Your task to perform on an android device: open app "Move to iOS" Image 0: 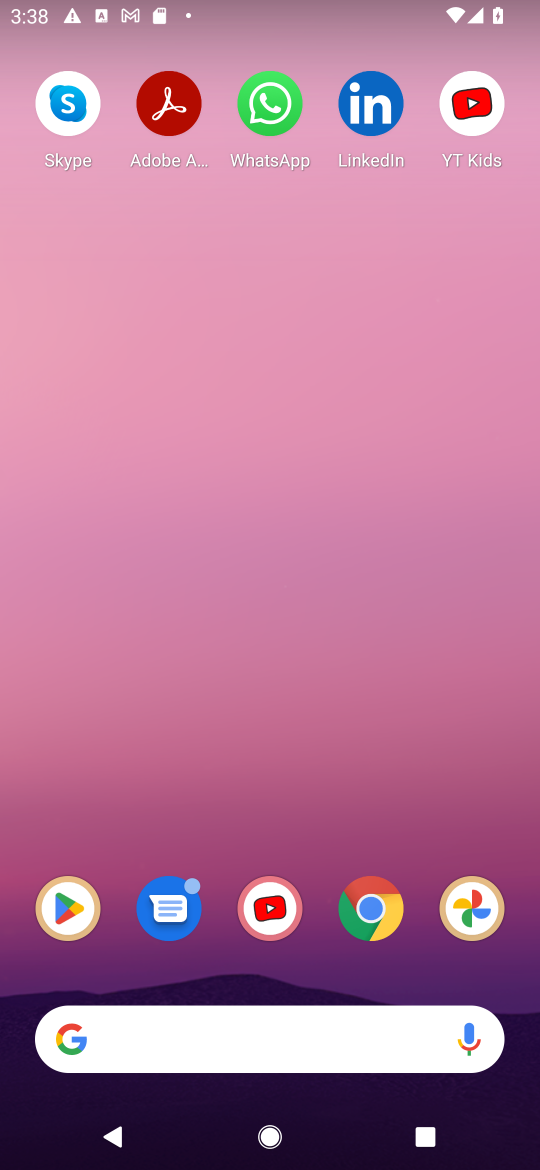
Step 0: click (78, 898)
Your task to perform on an android device: open app "Move to iOS" Image 1: 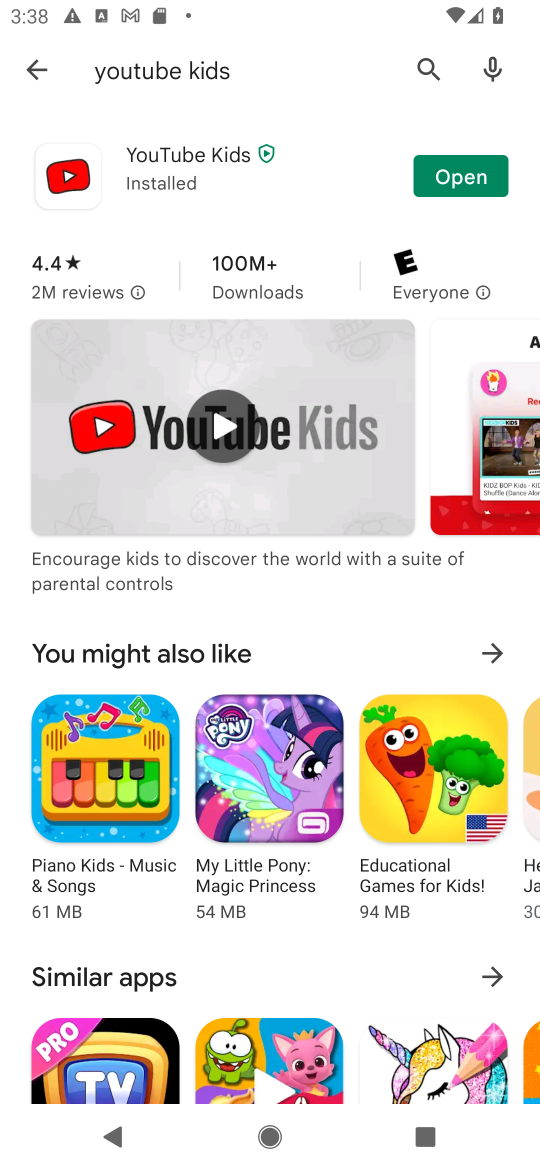
Step 1: click (417, 74)
Your task to perform on an android device: open app "Move to iOS" Image 2: 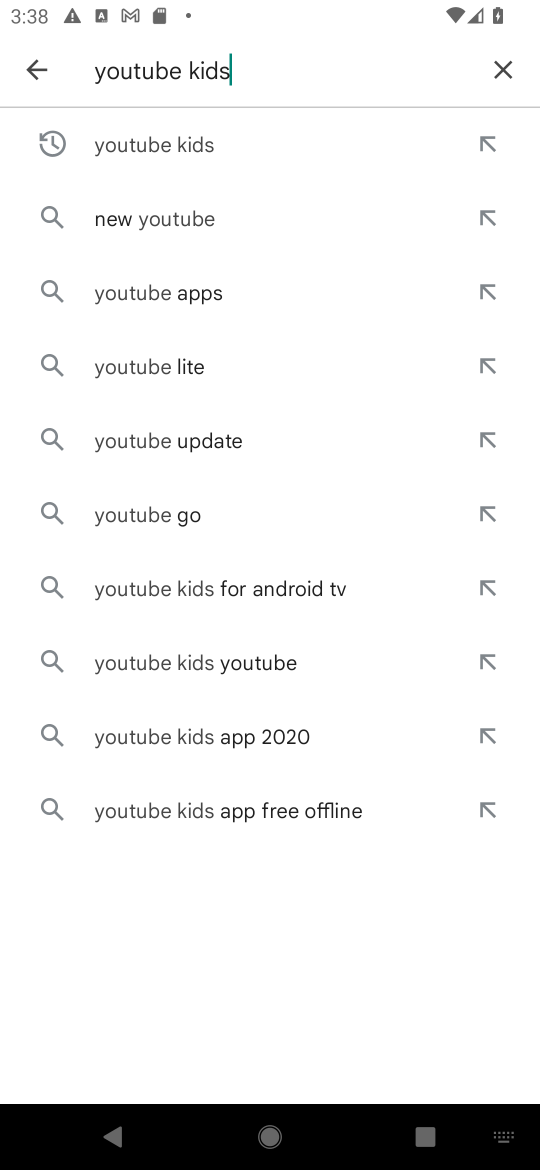
Step 2: click (512, 64)
Your task to perform on an android device: open app "Move to iOS" Image 3: 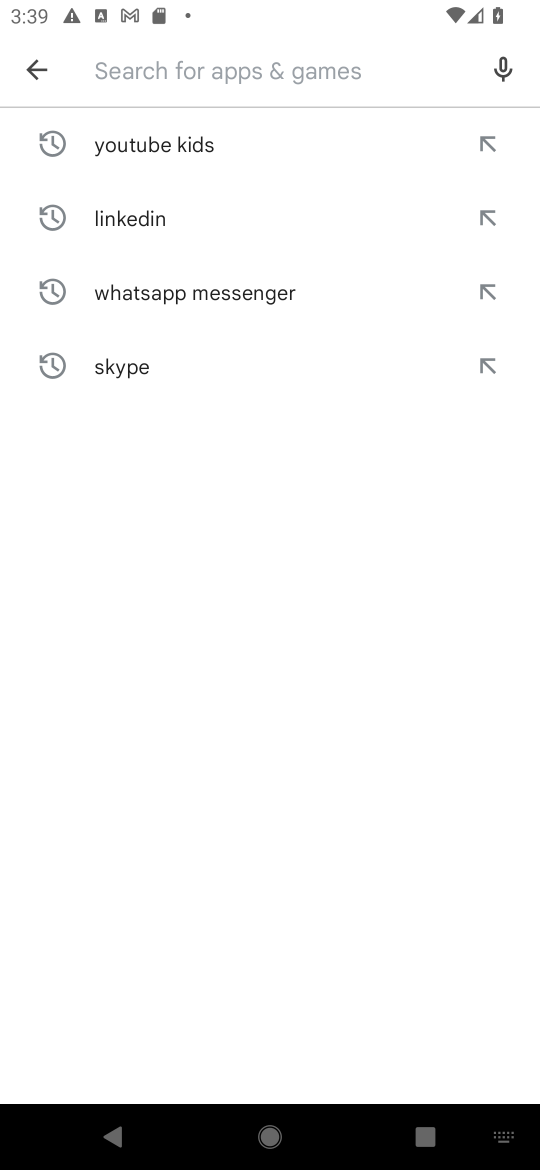
Step 3: type "move to ios"
Your task to perform on an android device: open app "Move to iOS" Image 4: 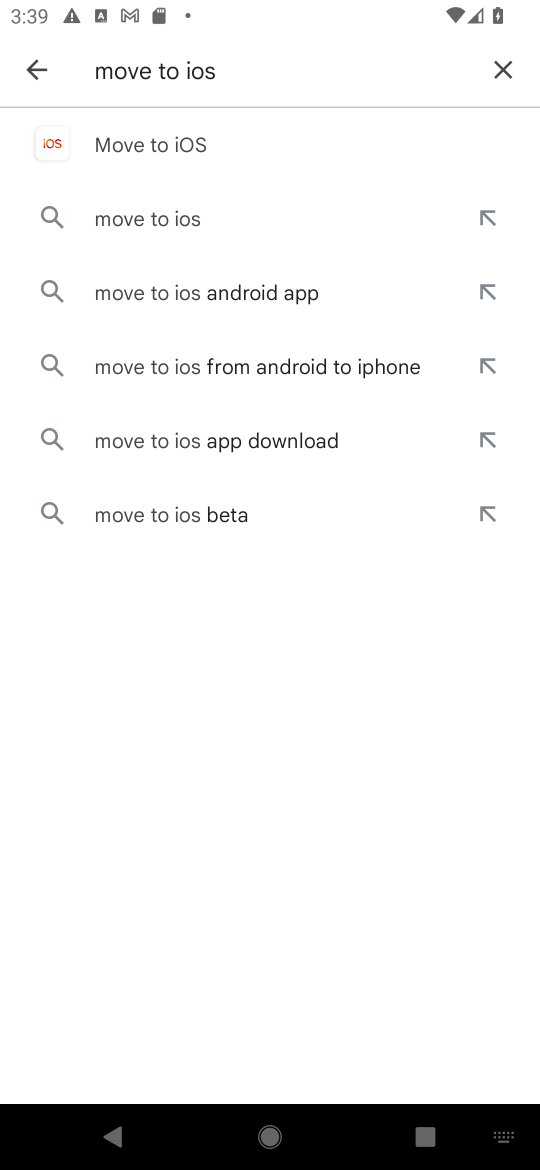
Step 4: click (145, 133)
Your task to perform on an android device: open app "Move to iOS" Image 5: 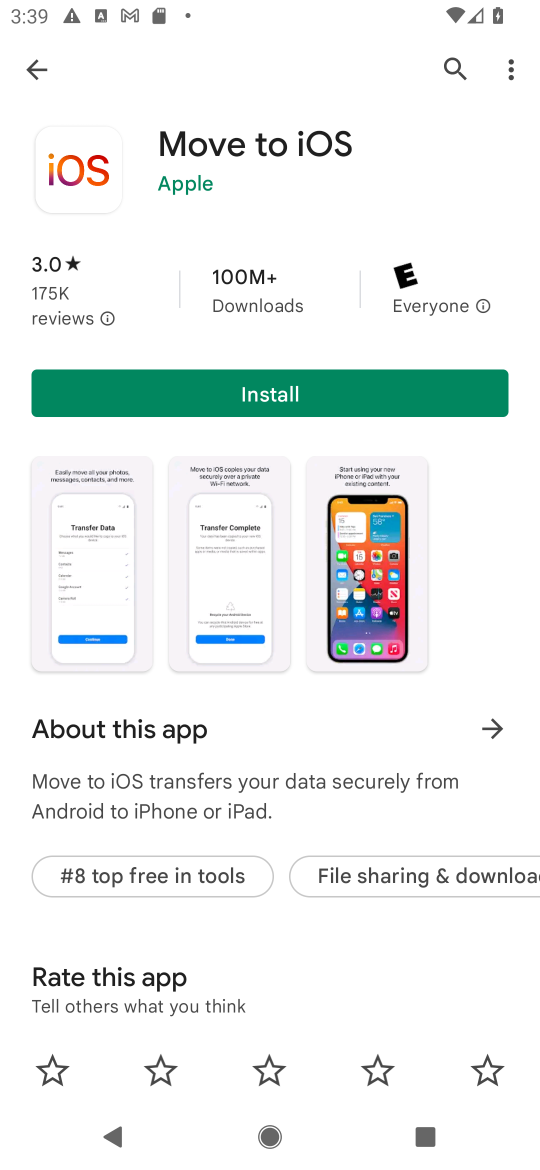
Step 5: task complete